Your task to perform on an android device: move an email to a new category in the gmail app Image 0: 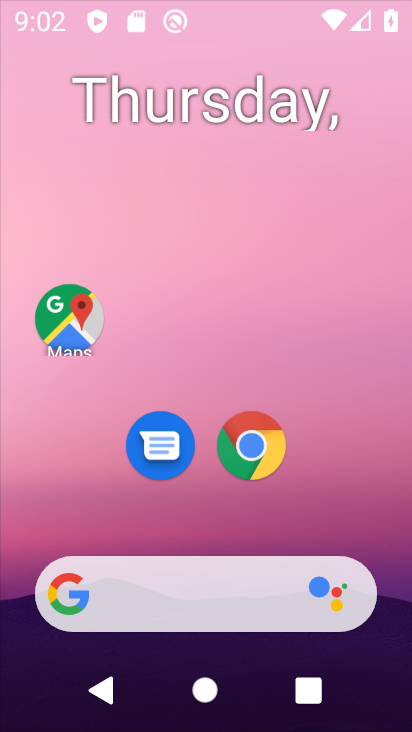
Step 0: click (372, 27)
Your task to perform on an android device: move an email to a new category in the gmail app Image 1: 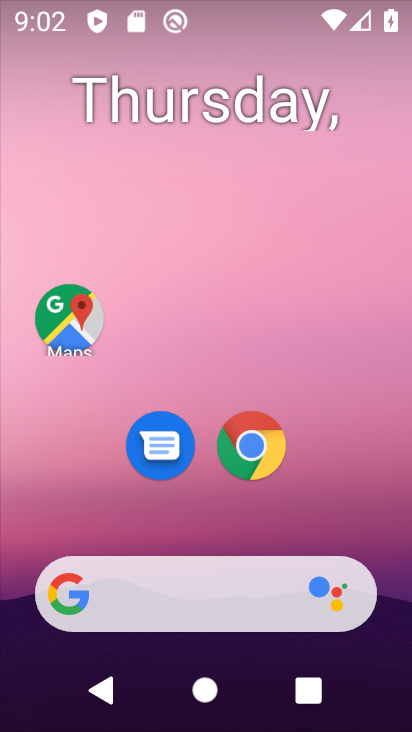
Step 1: drag from (207, 528) to (233, 314)
Your task to perform on an android device: move an email to a new category in the gmail app Image 2: 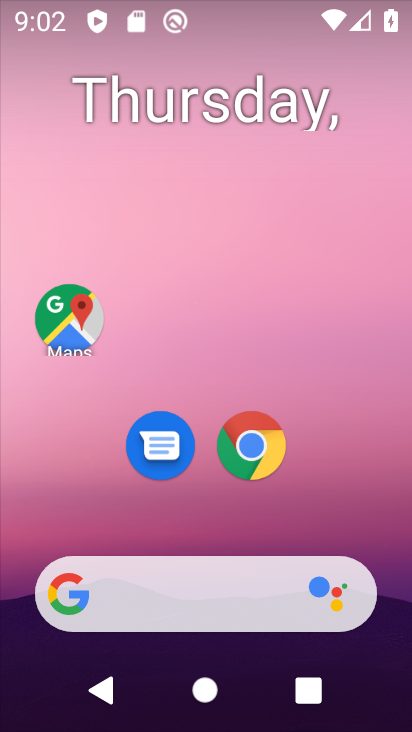
Step 2: drag from (213, 538) to (198, 82)
Your task to perform on an android device: move an email to a new category in the gmail app Image 3: 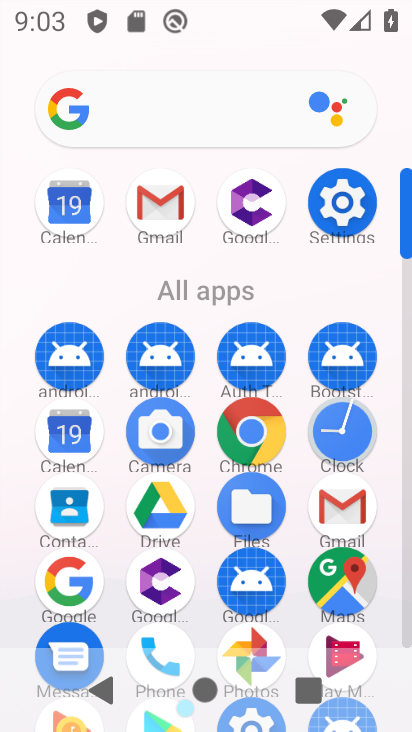
Step 3: click (328, 494)
Your task to perform on an android device: move an email to a new category in the gmail app Image 4: 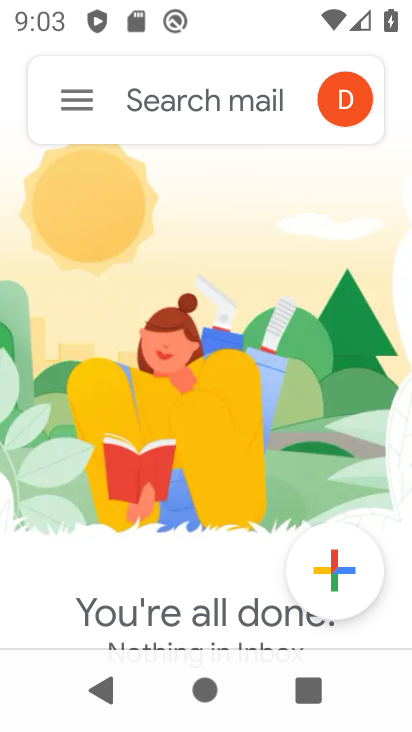
Step 4: click (69, 109)
Your task to perform on an android device: move an email to a new category in the gmail app Image 5: 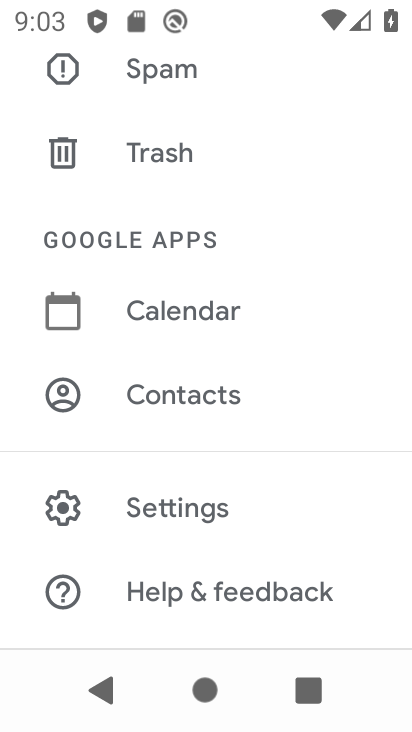
Step 5: task complete